Your task to perform on an android device: Turn on the flashlight Image 0: 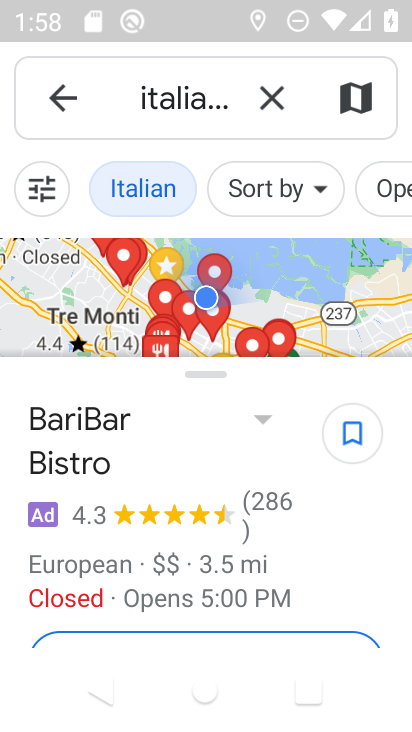
Step 0: press home button
Your task to perform on an android device: Turn on the flashlight Image 1: 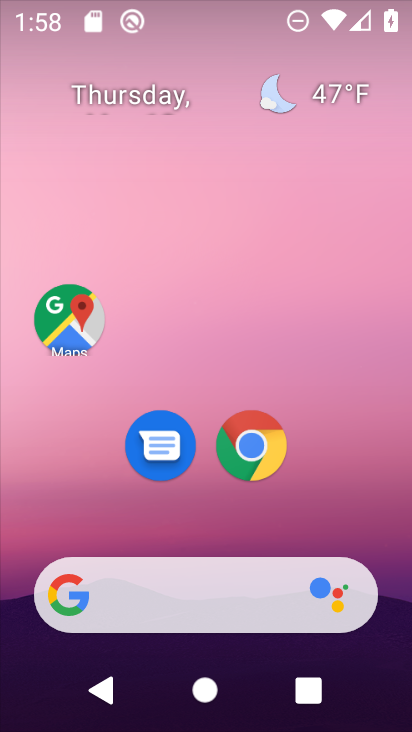
Step 1: drag from (230, 521) to (252, 250)
Your task to perform on an android device: Turn on the flashlight Image 2: 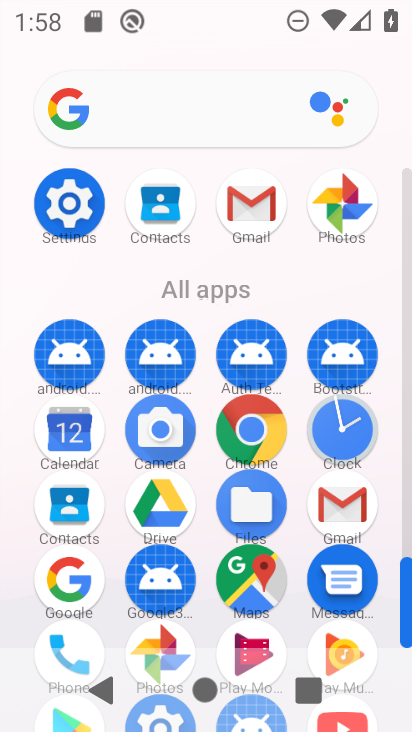
Step 2: click (53, 226)
Your task to perform on an android device: Turn on the flashlight Image 3: 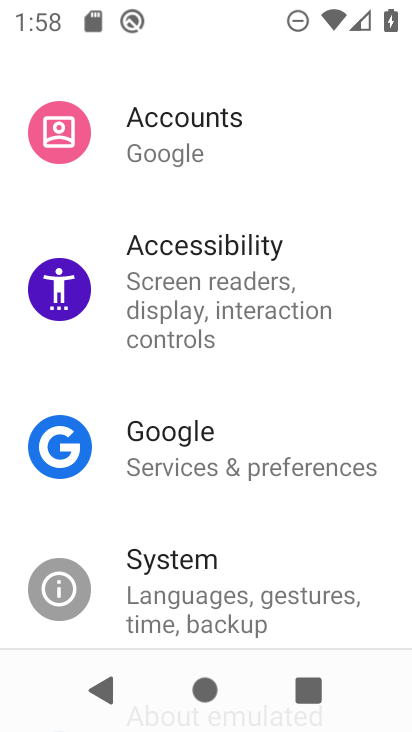
Step 3: task complete